Your task to perform on an android device: Go to location settings Image 0: 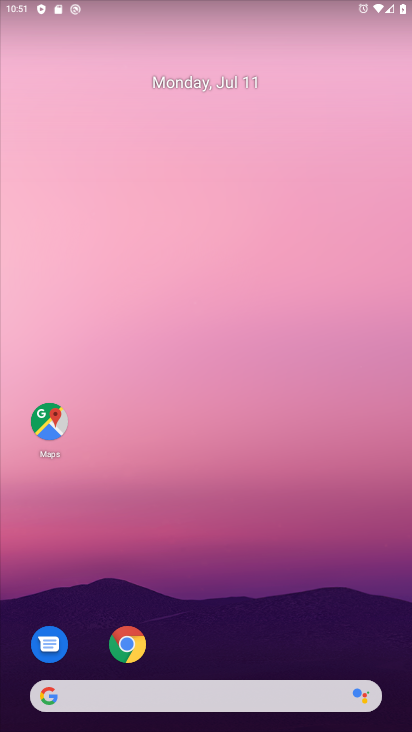
Step 0: press home button
Your task to perform on an android device: Go to location settings Image 1: 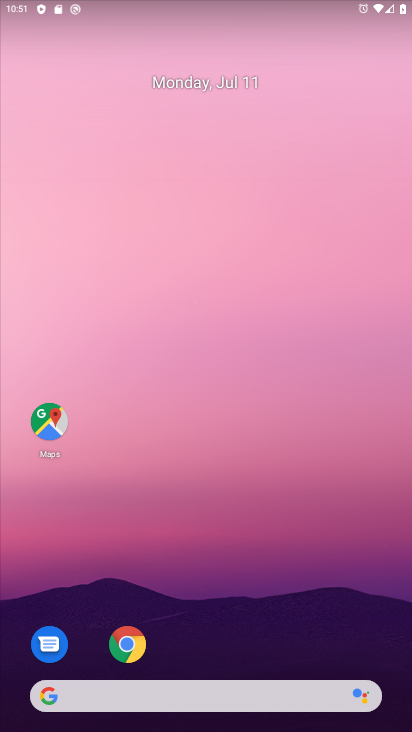
Step 1: drag from (278, 674) to (341, 66)
Your task to perform on an android device: Go to location settings Image 2: 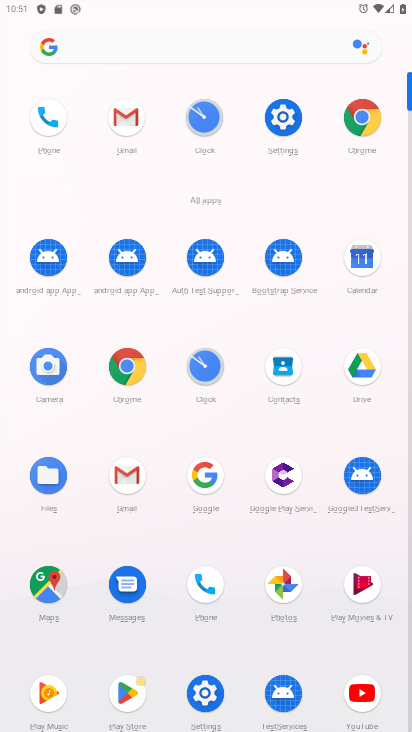
Step 2: click (294, 133)
Your task to perform on an android device: Go to location settings Image 3: 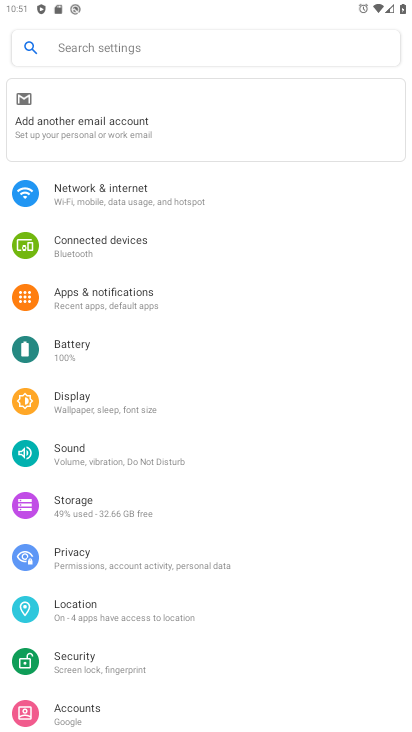
Step 3: click (75, 619)
Your task to perform on an android device: Go to location settings Image 4: 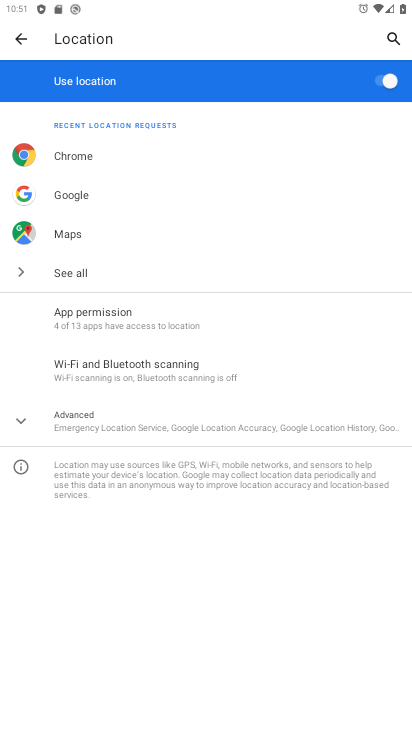
Step 4: task complete